Your task to perform on an android device: Search for a new nail polish Image 0: 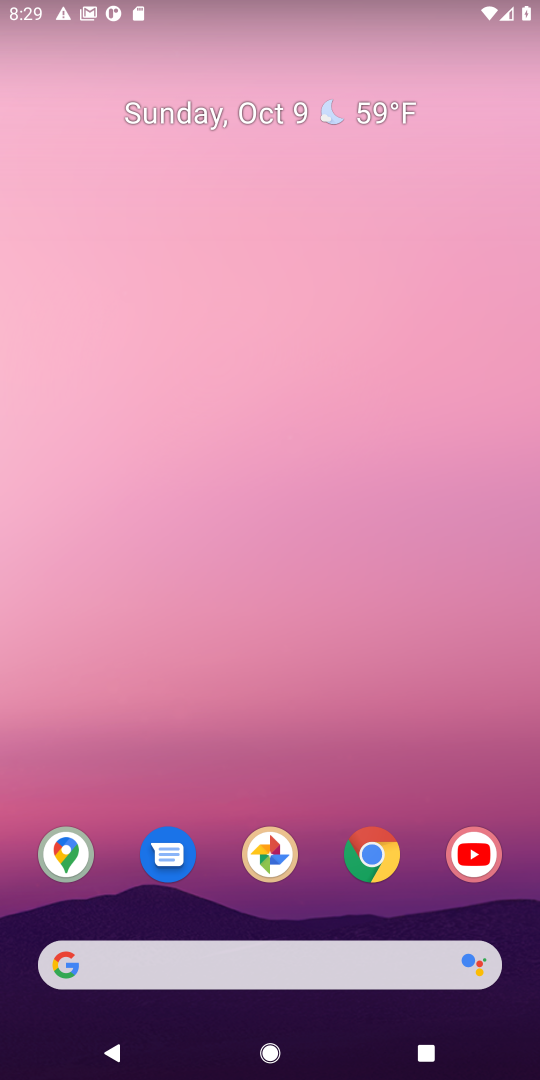
Step 0: drag from (292, 937) to (147, 71)
Your task to perform on an android device: Search for a new nail polish Image 1: 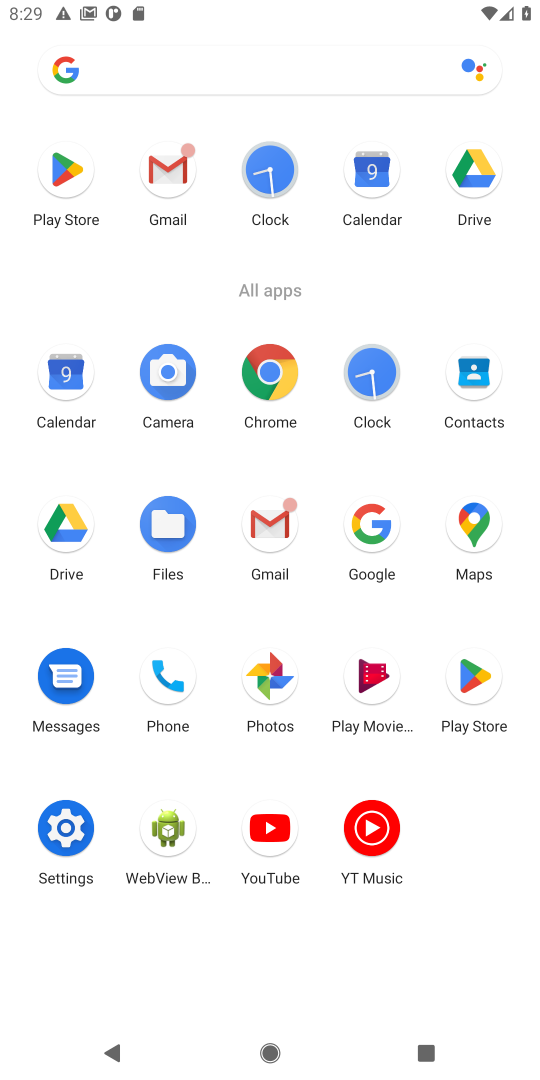
Step 1: click (270, 367)
Your task to perform on an android device: Search for a new nail polish Image 2: 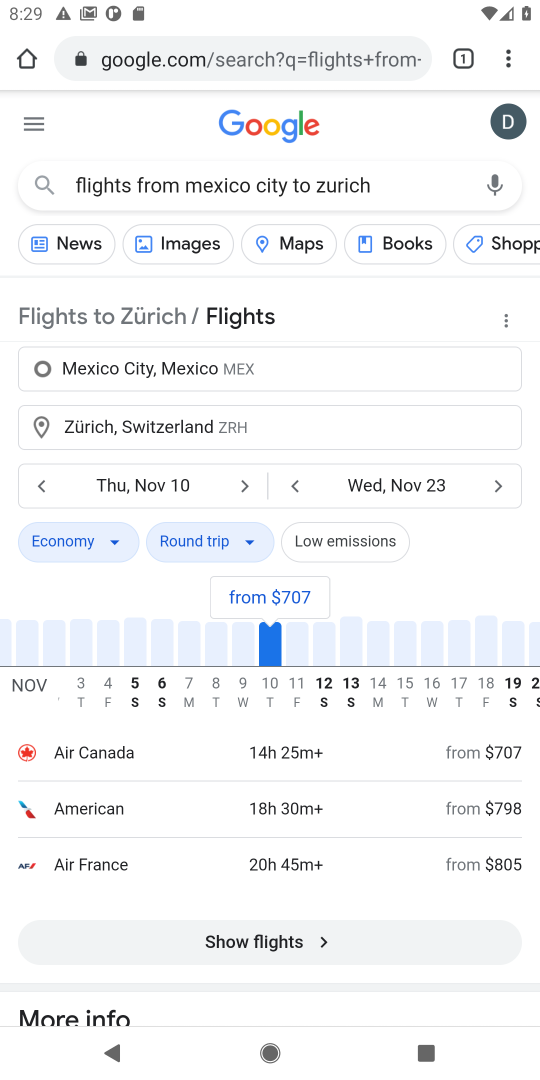
Step 2: click (410, 193)
Your task to perform on an android device: Search for a new nail polish Image 3: 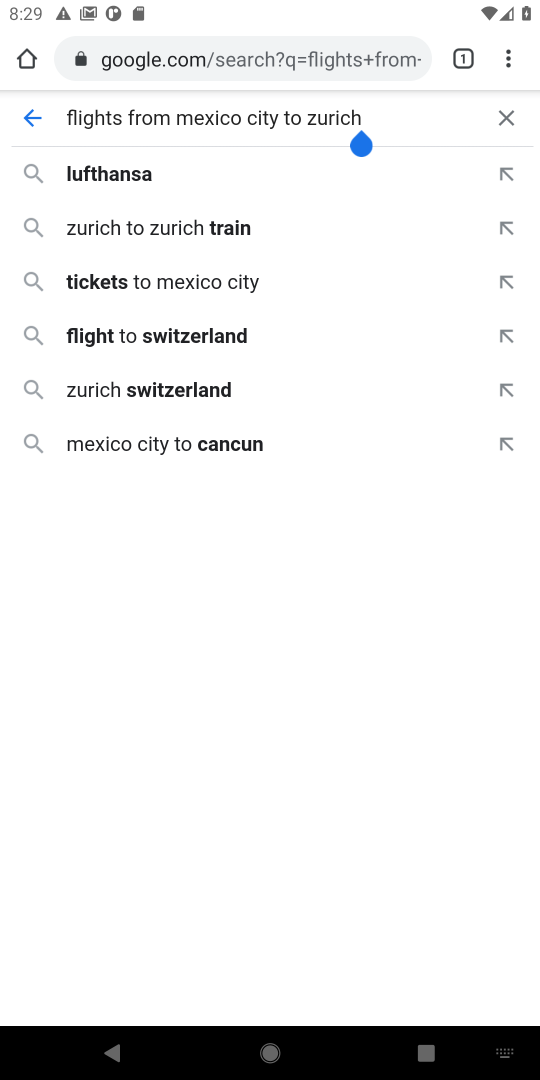
Step 3: click (495, 109)
Your task to perform on an android device: Search for a new nail polish Image 4: 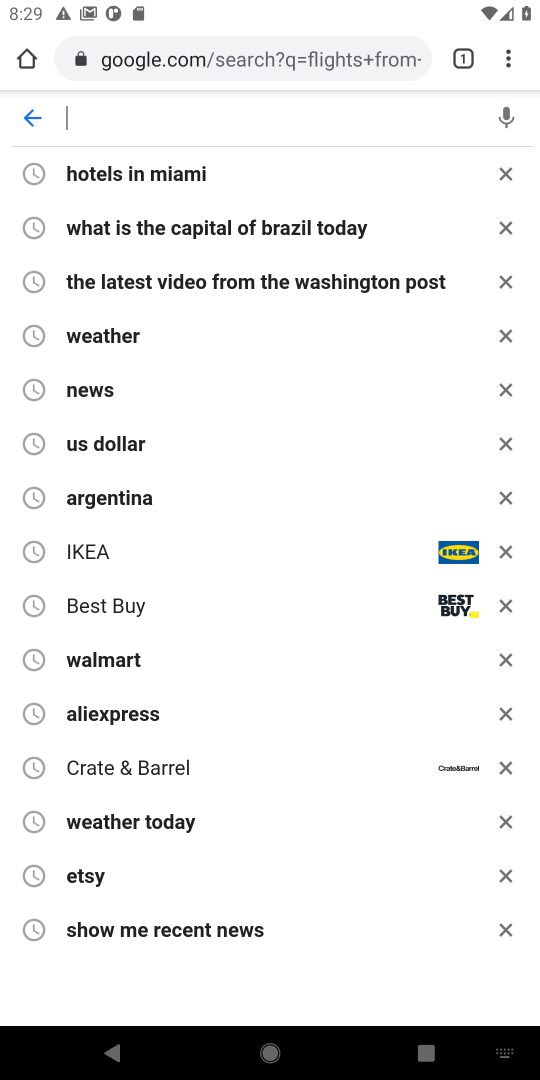
Step 4: type "new nail polish"
Your task to perform on an android device: Search for a new nail polish Image 5: 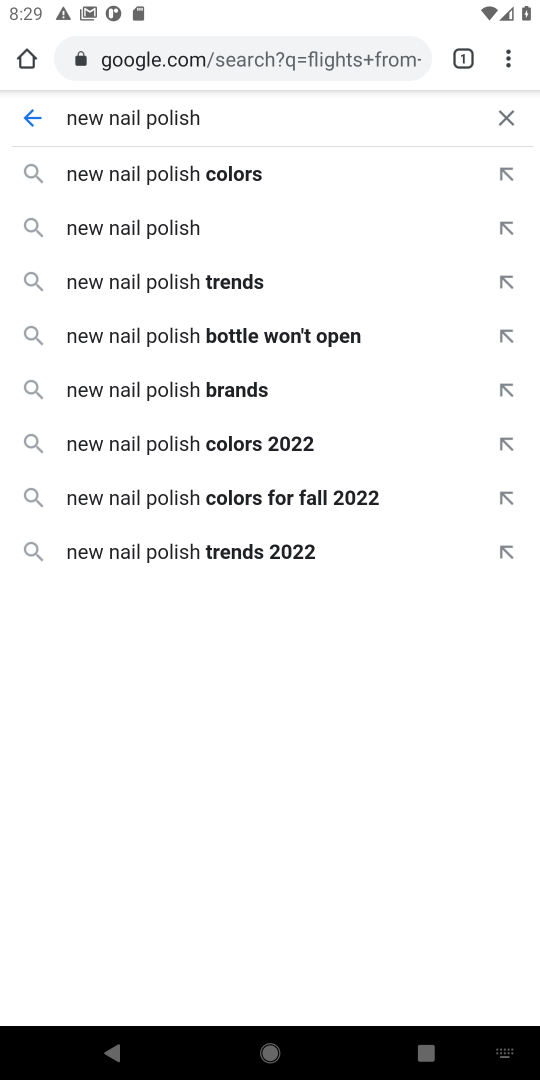
Step 5: click (173, 222)
Your task to perform on an android device: Search for a new nail polish Image 6: 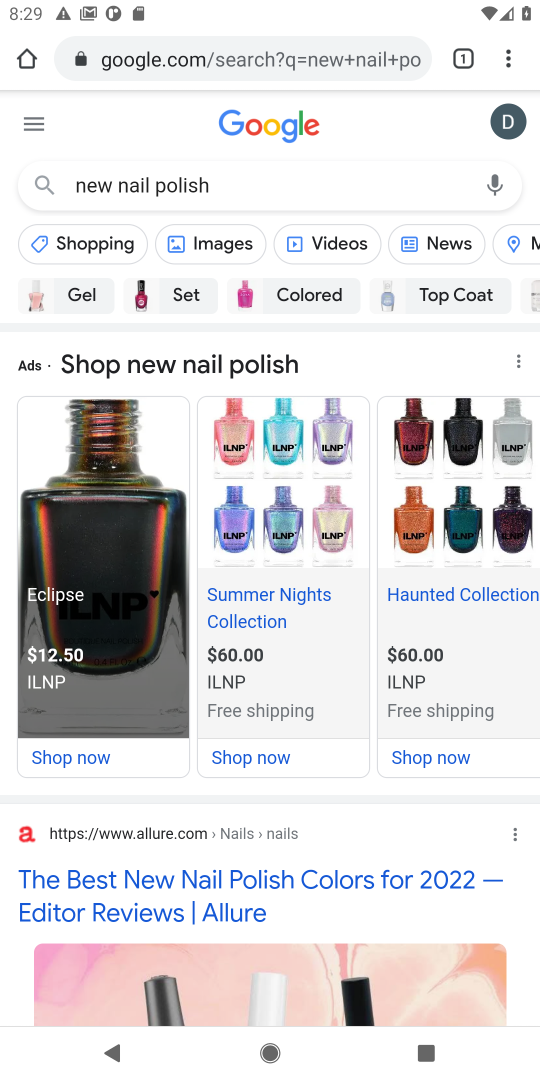
Step 6: task complete